Your task to perform on an android device: Open calendar and show me the third week of next month Image 0: 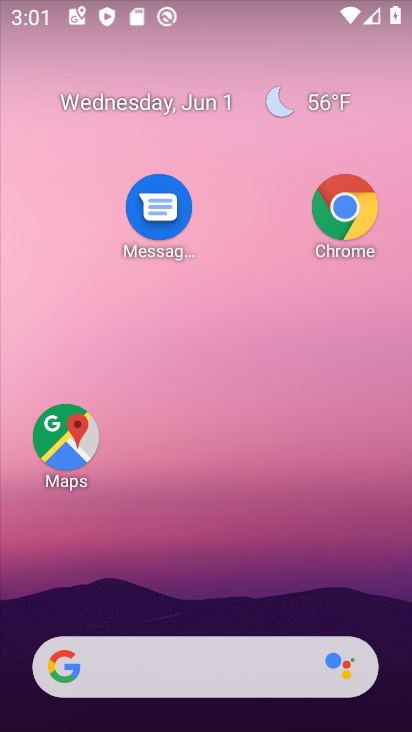
Step 0: drag from (216, 587) to (192, 23)
Your task to perform on an android device: Open calendar and show me the third week of next month Image 1: 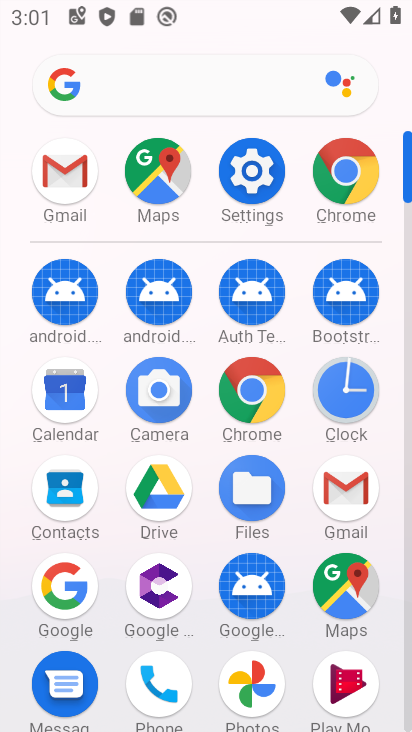
Step 1: click (71, 410)
Your task to perform on an android device: Open calendar and show me the third week of next month Image 2: 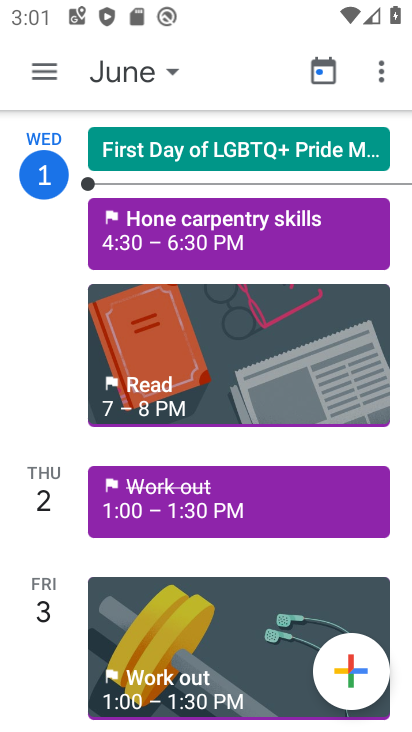
Step 2: click (102, 70)
Your task to perform on an android device: Open calendar and show me the third week of next month Image 3: 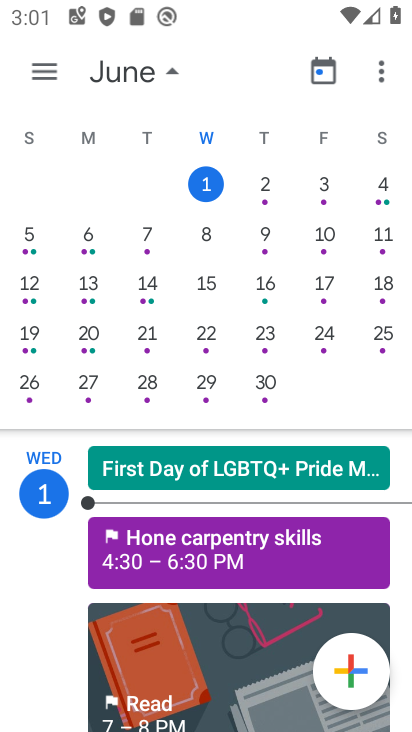
Step 3: drag from (340, 317) to (0, 260)
Your task to perform on an android device: Open calendar and show me the third week of next month Image 4: 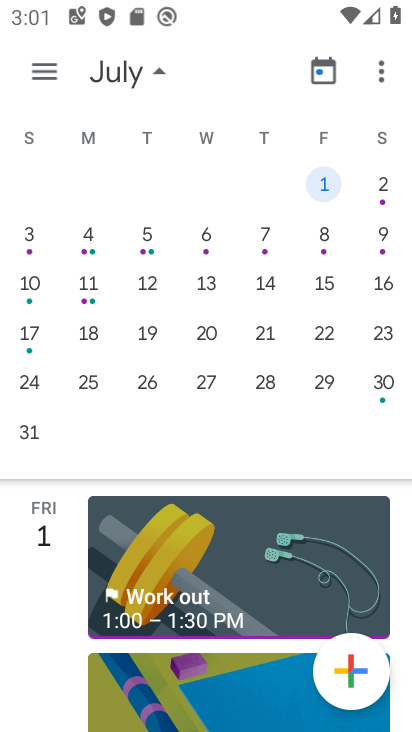
Step 4: click (206, 288)
Your task to perform on an android device: Open calendar and show me the third week of next month Image 5: 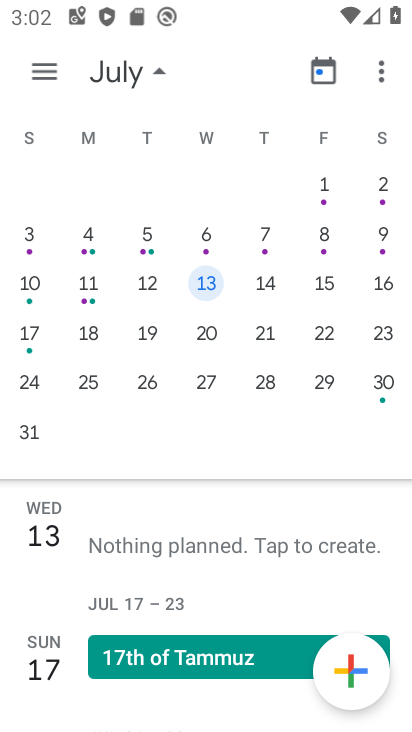
Step 5: task complete